Your task to perform on an android device: Go to Google Image 0: 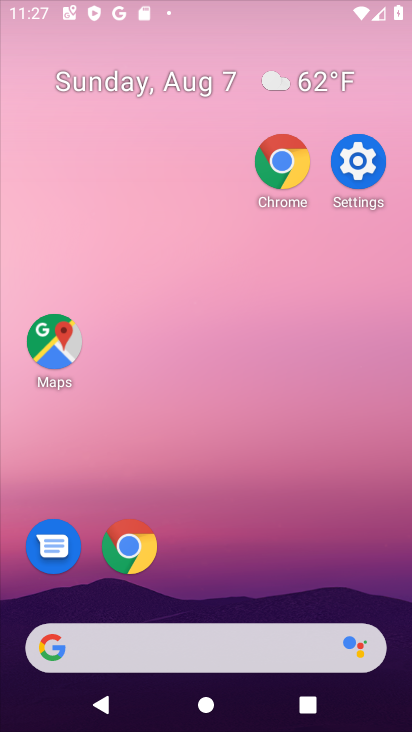
Step 0: drag from (268, 593) to (228, 288)
Your task to perform on an android device: Go to Google Image 1: 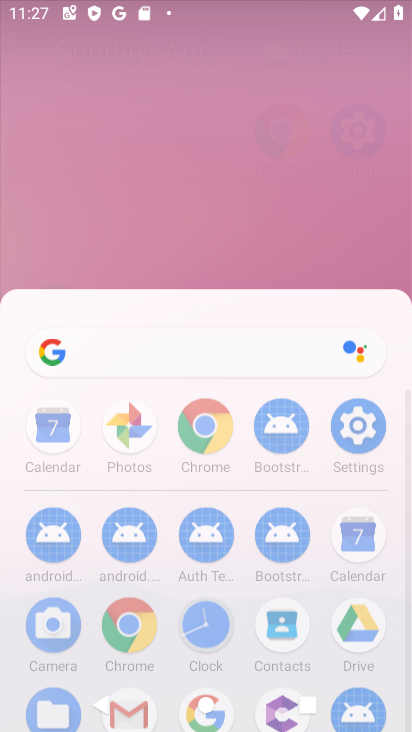
Step 1: drag from (269, 607) to (237, 82)
Your task to perform on an android device: Go to Google Image 2: 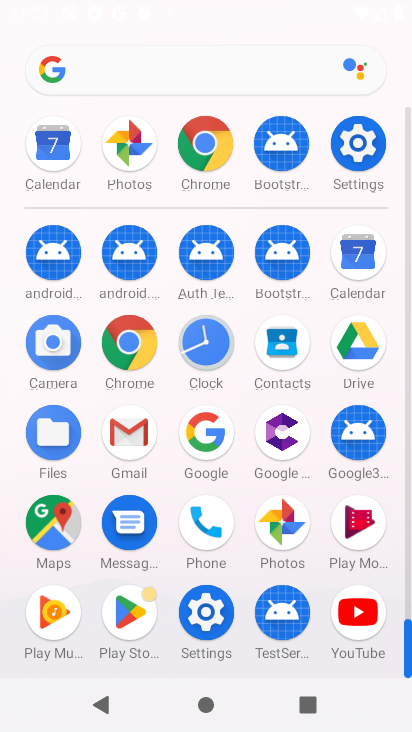
Step 2: click (217, 428)
Your task to perform on an android device: Go to Google Image 3: 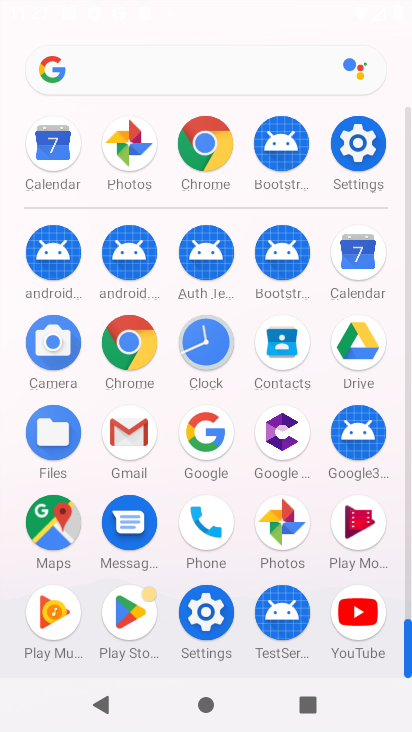
Step 3: click (217, 428)
Your task to perform on an android device: Go to Google Image 4: 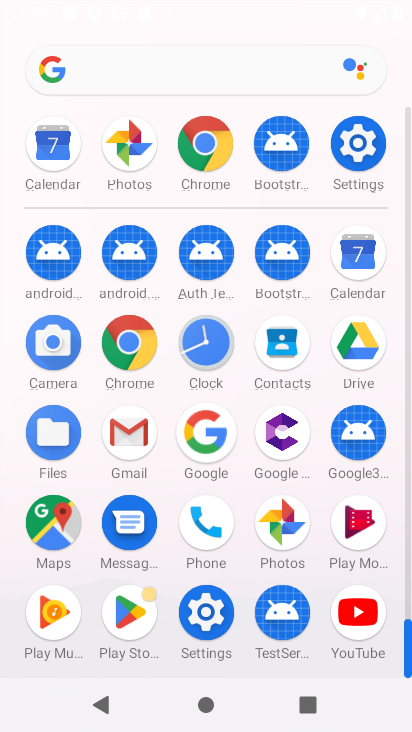
Step 4: click (227, 438)
Your task to perform on an android device: Go to Google Image 5: 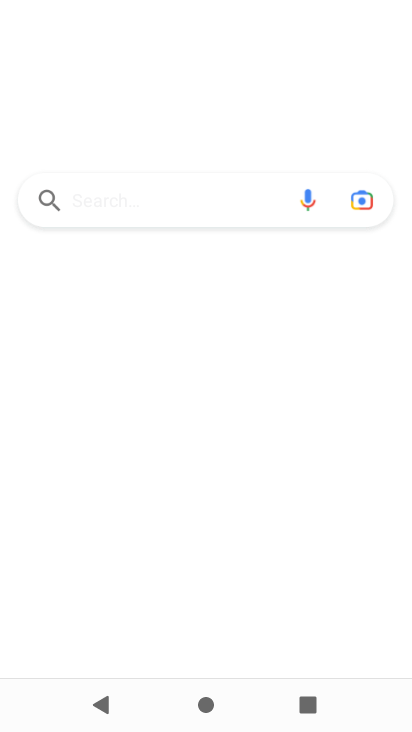
Step 5: click (195, 442)
Your task to perform on an android device: Go to Google Image 6: 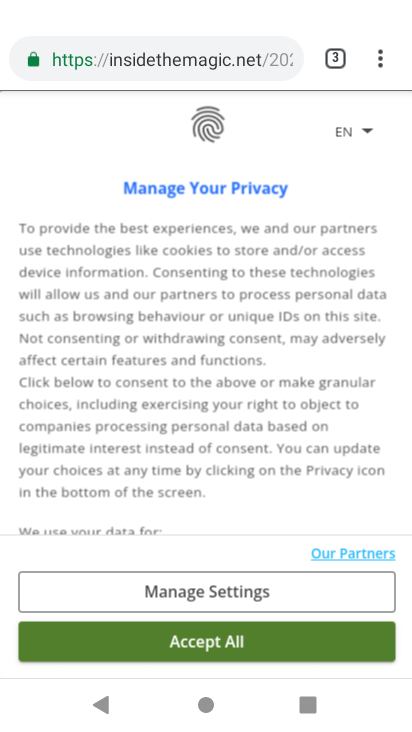
Step 6: task complete